Your task to perform on an android device: open chrome and create a bookmark for the current page Image 0: 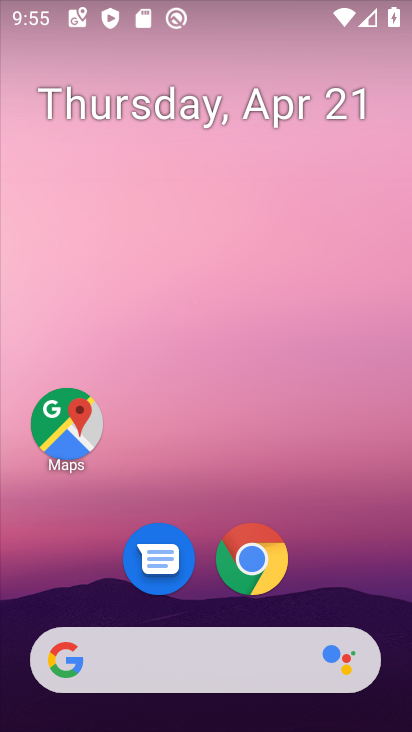
Step 0: drag from (257, 685) to (303, 114)
Your task to perform on an android device: open chrome and create a bookmark for the current page Image 1: 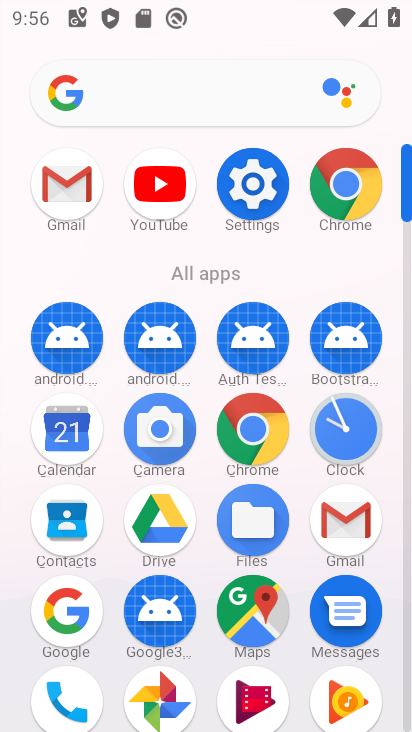
Step 1: click (340, 186)
Your task to perform on an android device: open chrome and create a bookmark for the current page Image 2: 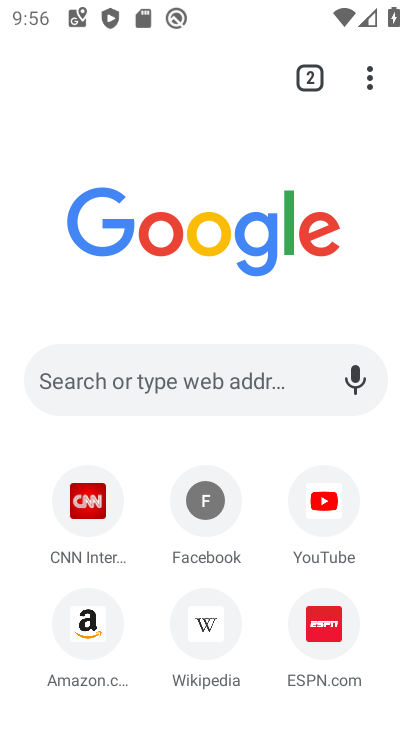
Step 2: click (369, 76)
Your task to perform on an android device: open chrome and create a bookmark for the current page Image 3: 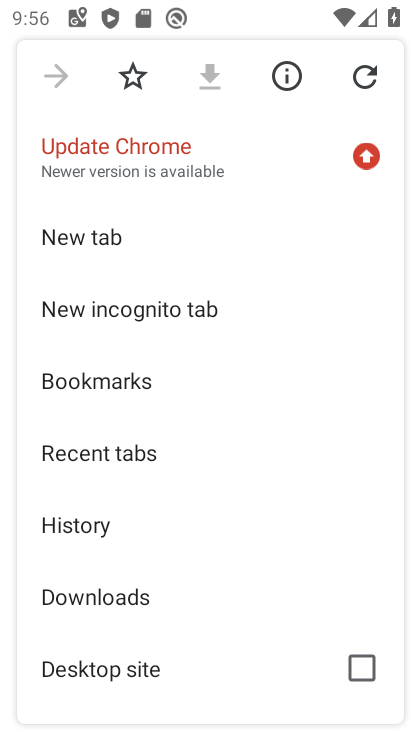
Step 3: click (108, 385)
Your task to perform on an android device: open chrome and create a bookmark for the current page Image 4: 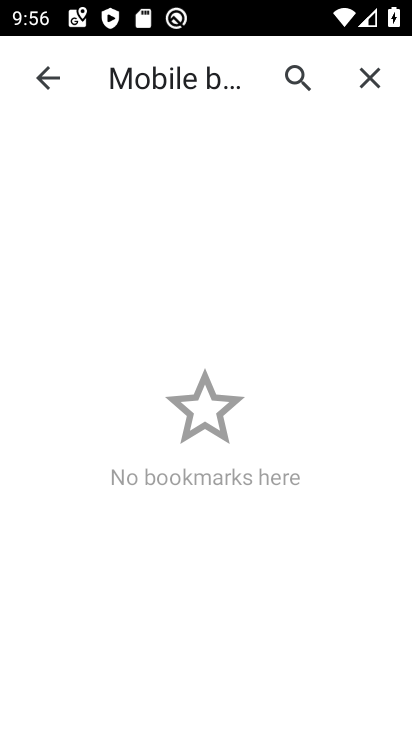
Step 4: task complete